Your task to perform on an android device: Open settings Image 0: 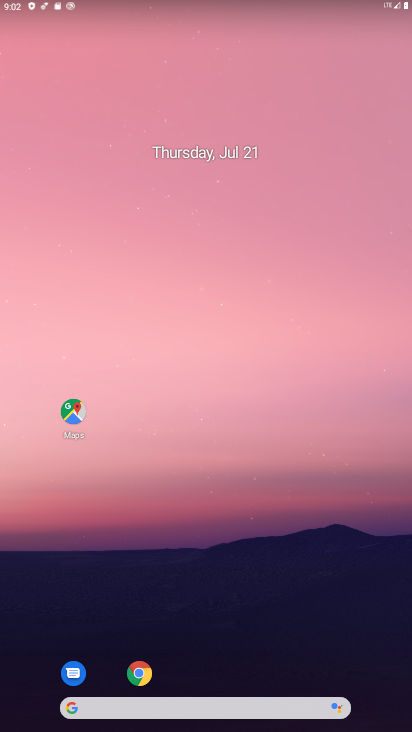
Step 0: drag from (244, 663) to (211, 197)
Your task to perform on an android device: Open settings Image 1: 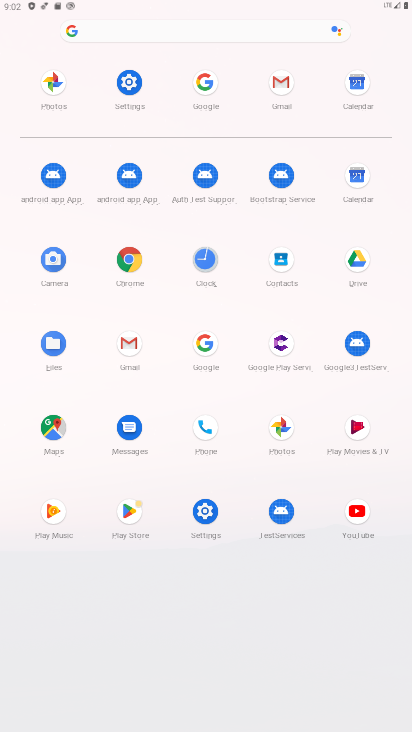
Step 1: click (142, 84)
Your task to perform on an android device: Open settings Image 2: 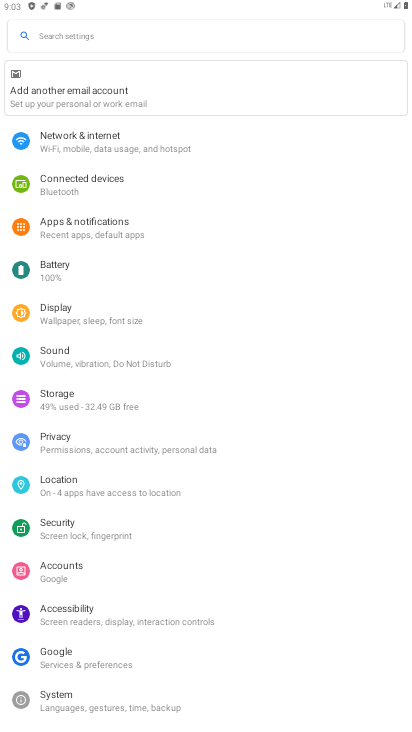
Step 2: task complete